Your task to perform on an android device: What's on my calendar today? Image 0: 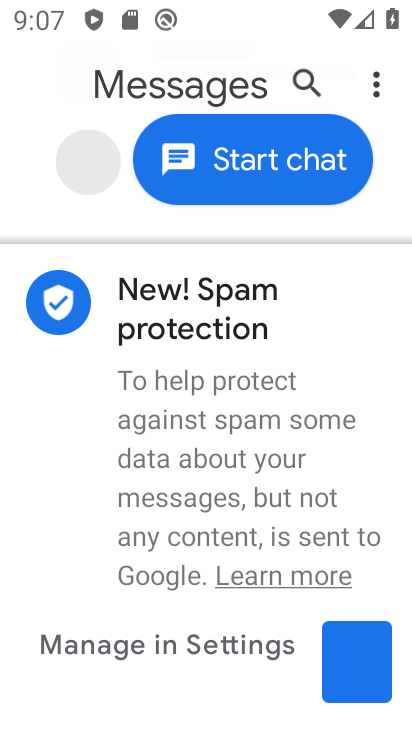
Step 0: press home button
Your task to perform on an android device: What's on my calendar today? Image 1: 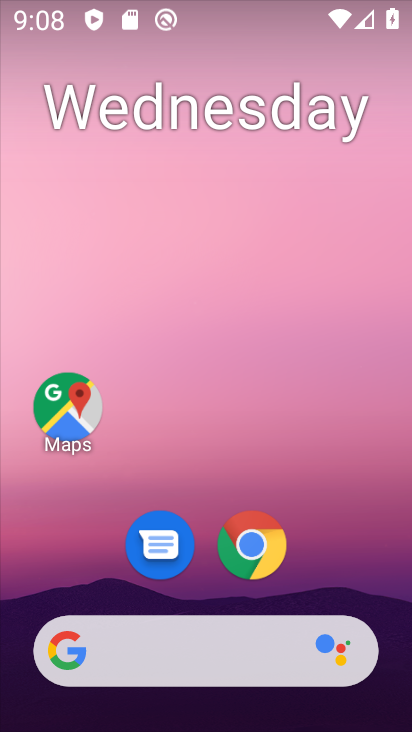
Step 1: drag from (391, 581) to (225, 7)
Your task to perform on an android device: What's on my calendar today? Image 2: 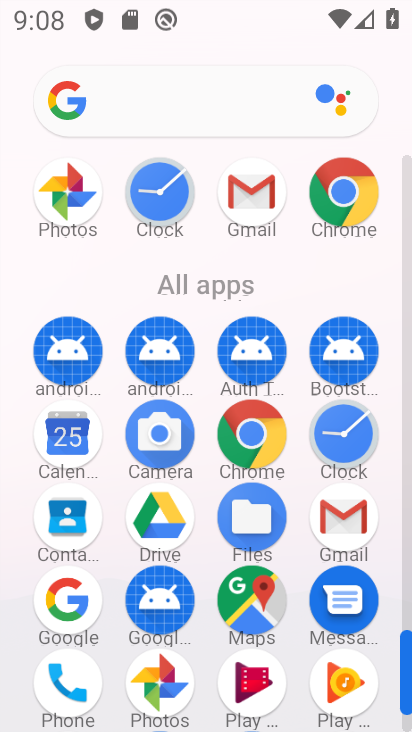
Step 2: click (49, 441)
Your task to perform on an android device: What's on my calendar today? Image 3: 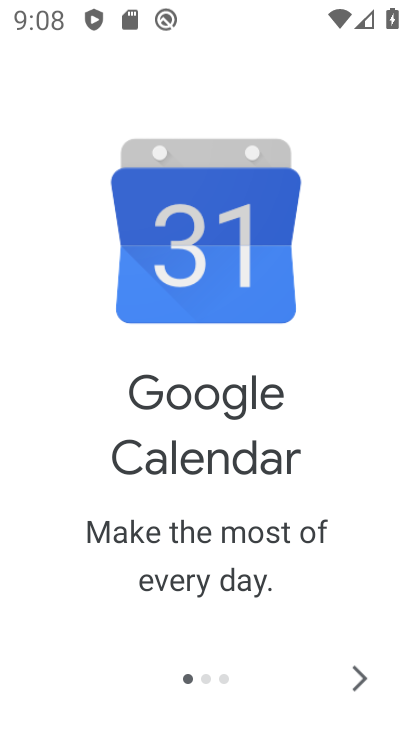
Step 3: click (361, 681)
Your task to perform on an android device: What's on my calendar today? Image 4: 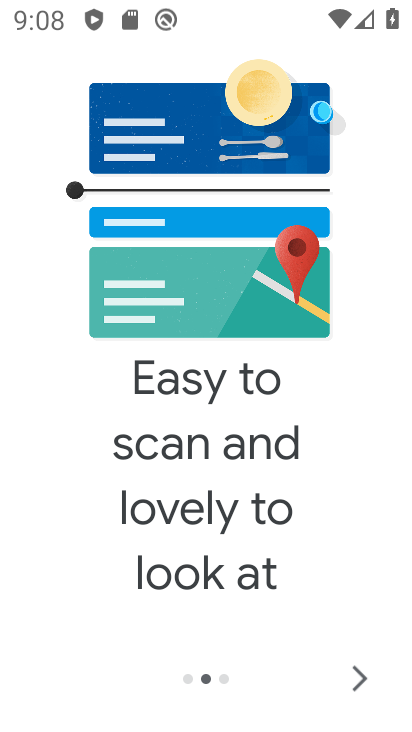
Step 4: click (361, 681)
Your task to perform on an android device: What's on my calendar today? Image 5: 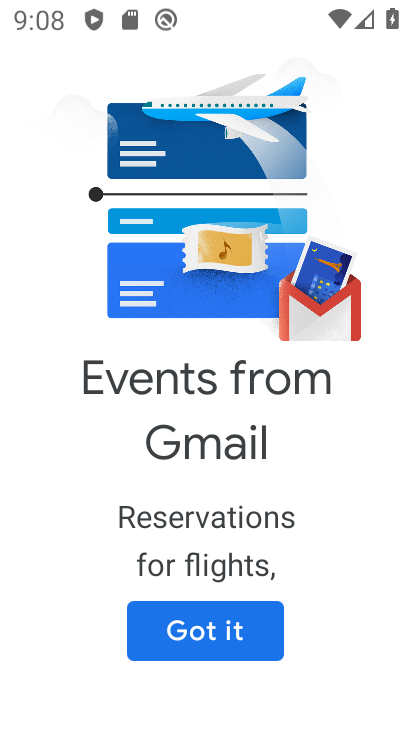
Step 5: click (232, 630)
Your task to perform on an android device: What's on my calendar today? Image 6: 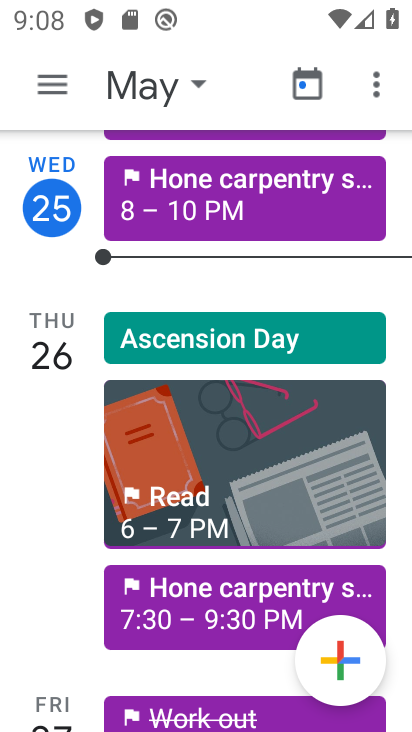
Step 6: task complete